Your task to perform on an android device: Go to settings Image 0: 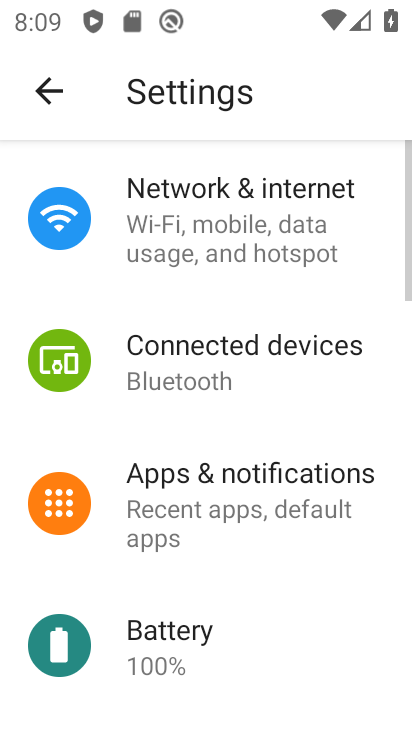
Step 0: drag from (259, 477) to (207, 84)
Your task to perform on an android device: Go to settings Image 1: 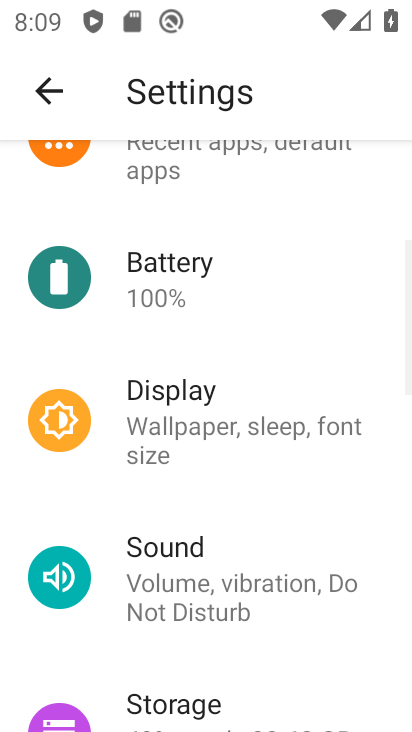
Step 1: task complete